Your task to perform on an android device: Open Yahoo.com Image 0: 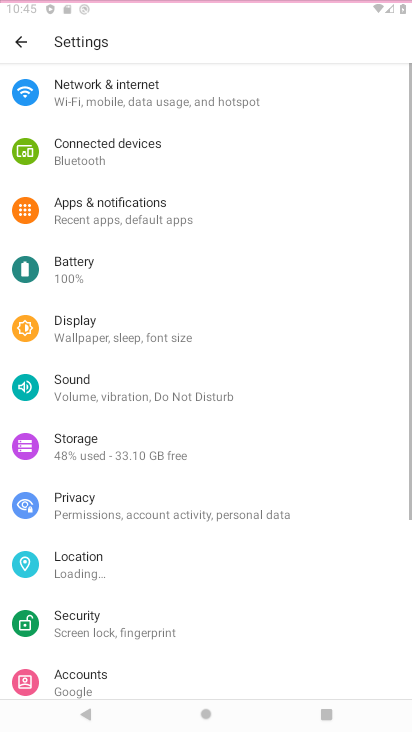
Step 0: press home button
Your task to perform on an android device: Open Yahoo.com Image 1: 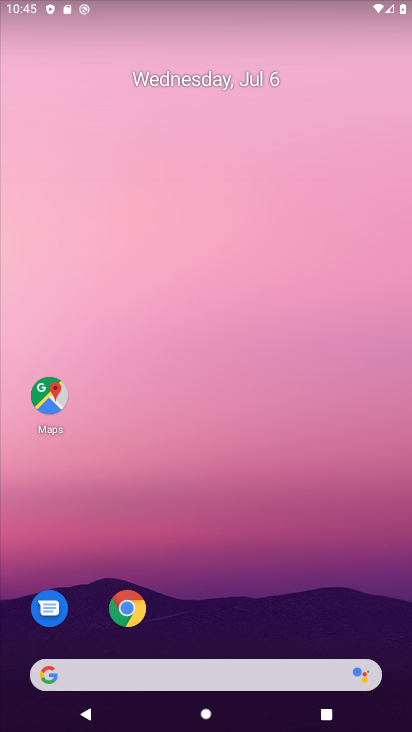
Step 1: click (123, 612)
Your task to perform on an android device: Open Yahoo.com Image 2: 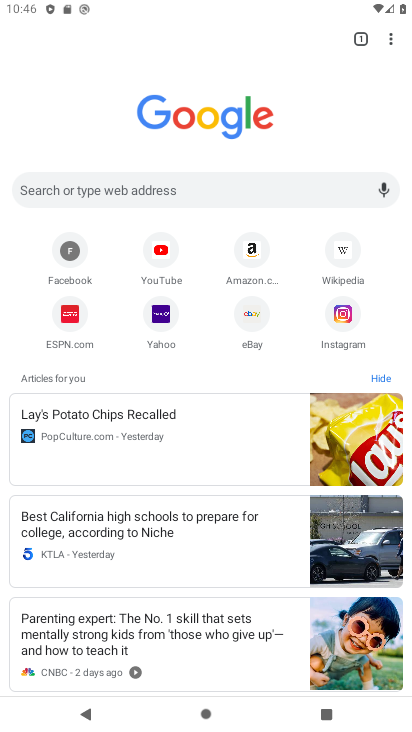
Step 2: click (161, 303)
Your task to perform on an android device: Open Yahoo.com Image 3: 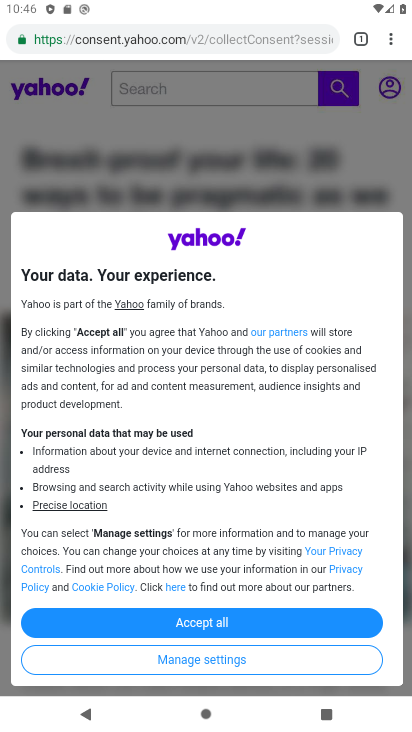
Step 3: task complete